Your task to perform on an android device: Open Yahoo.com Image 0: 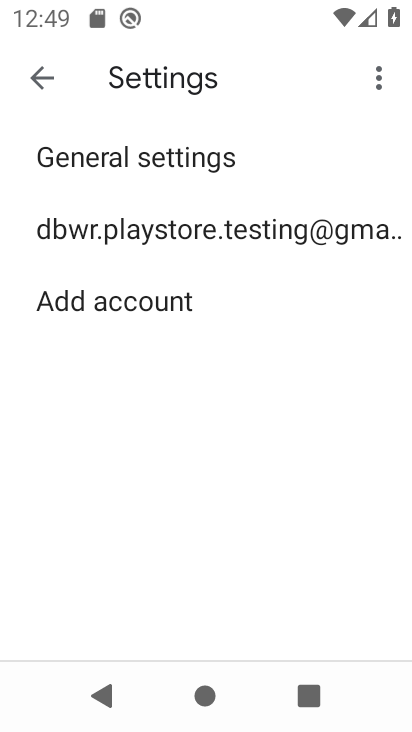
Step 0: press home button
Your task to perform on an android device: Open Yahoo.com Image 1: 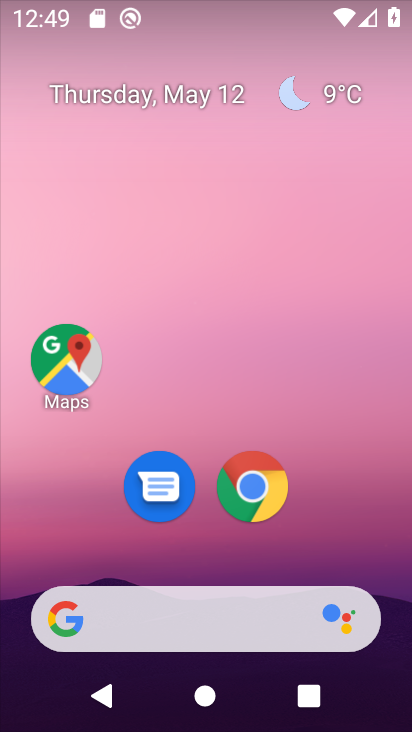
Step 1: click (243, 490)
Your task to perform on an android device: Open Yahoo.com Image 2: 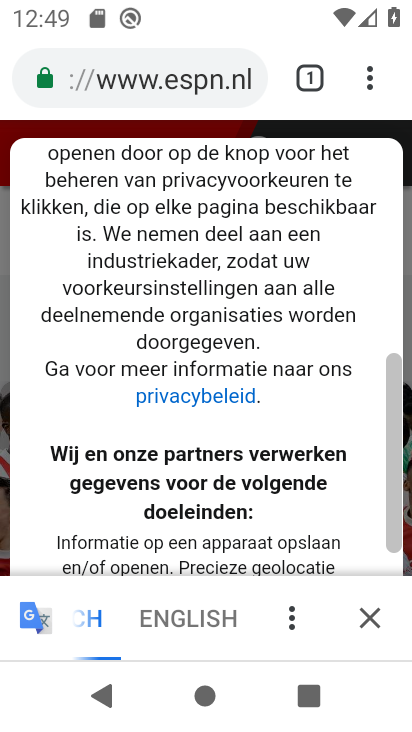
Step 2: click (303, 76)
Your task to perform on an android device: Open Yahoo.com Image 3: 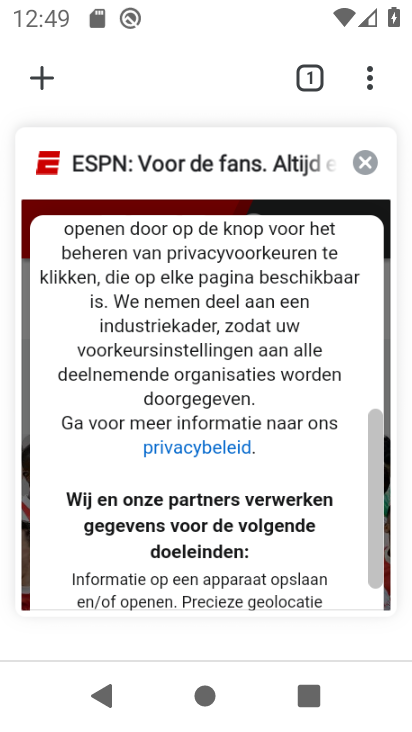
Step 3: click (364, 160)
Your task to perform on an android device: Open Yahoo.com Image 4: 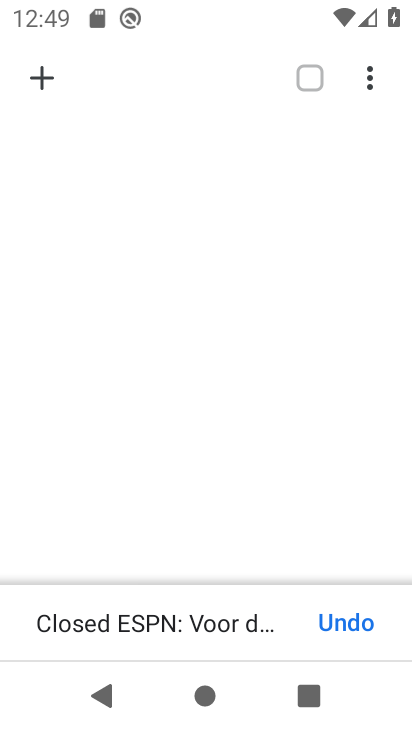
Step 4: click (41, 70)
Your task to perform on an android device: Open Yahoo.com Image 5: 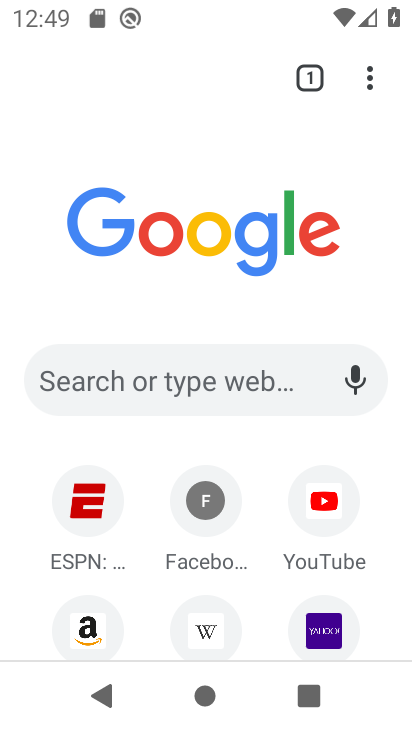
Step 5: click (327, 635)
Your task to perform on an android device: Open Yahoo.com Image 6: 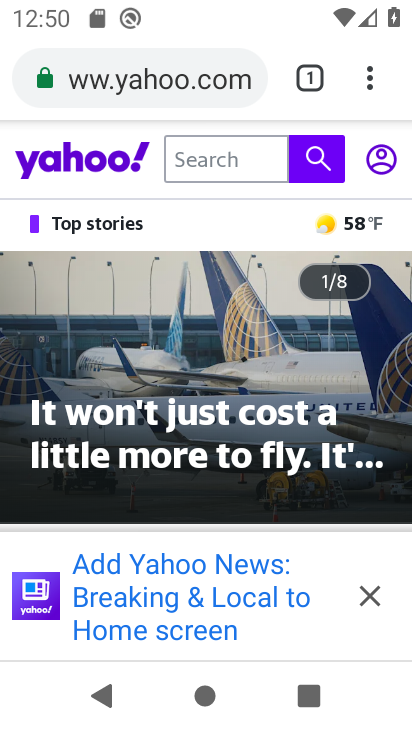
Step 6: click (379, 595)
Your task to perform on an android device: Open Yahoo.com Image 7: 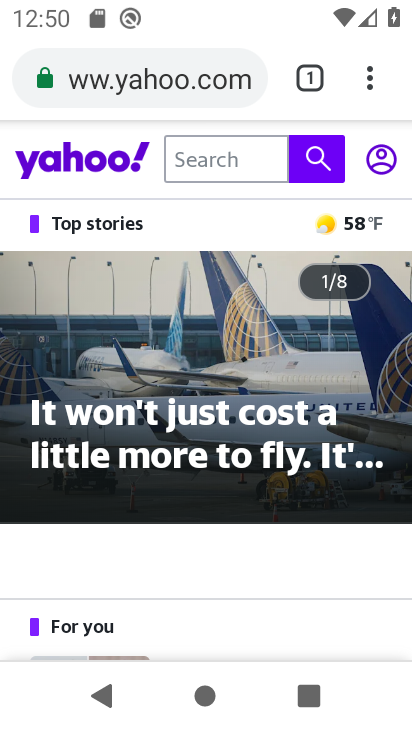
Step 7: task complete